Your task to perform on an android device: Open notification settings Image 0: 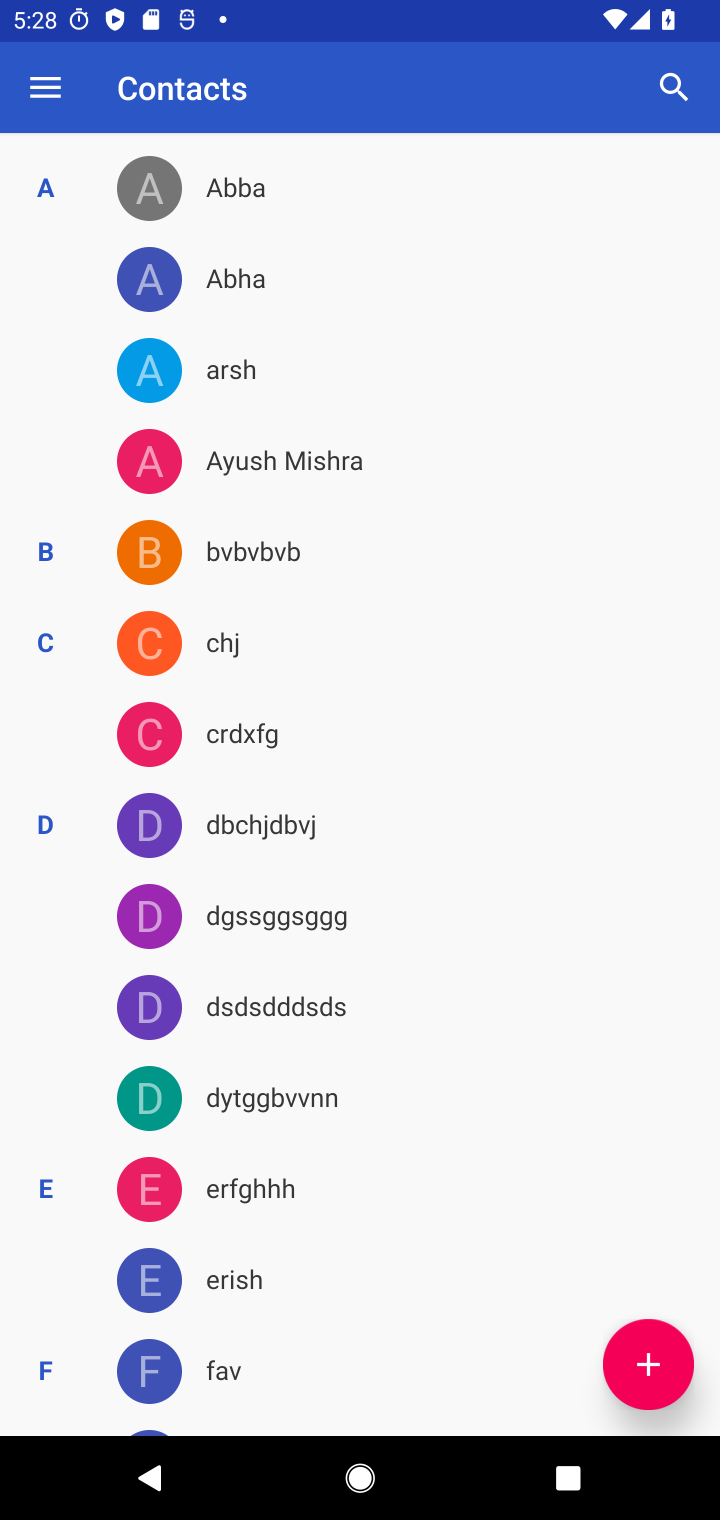
Step 0: press home button
Your task to perform on an android device: Open notification settings Image 1: 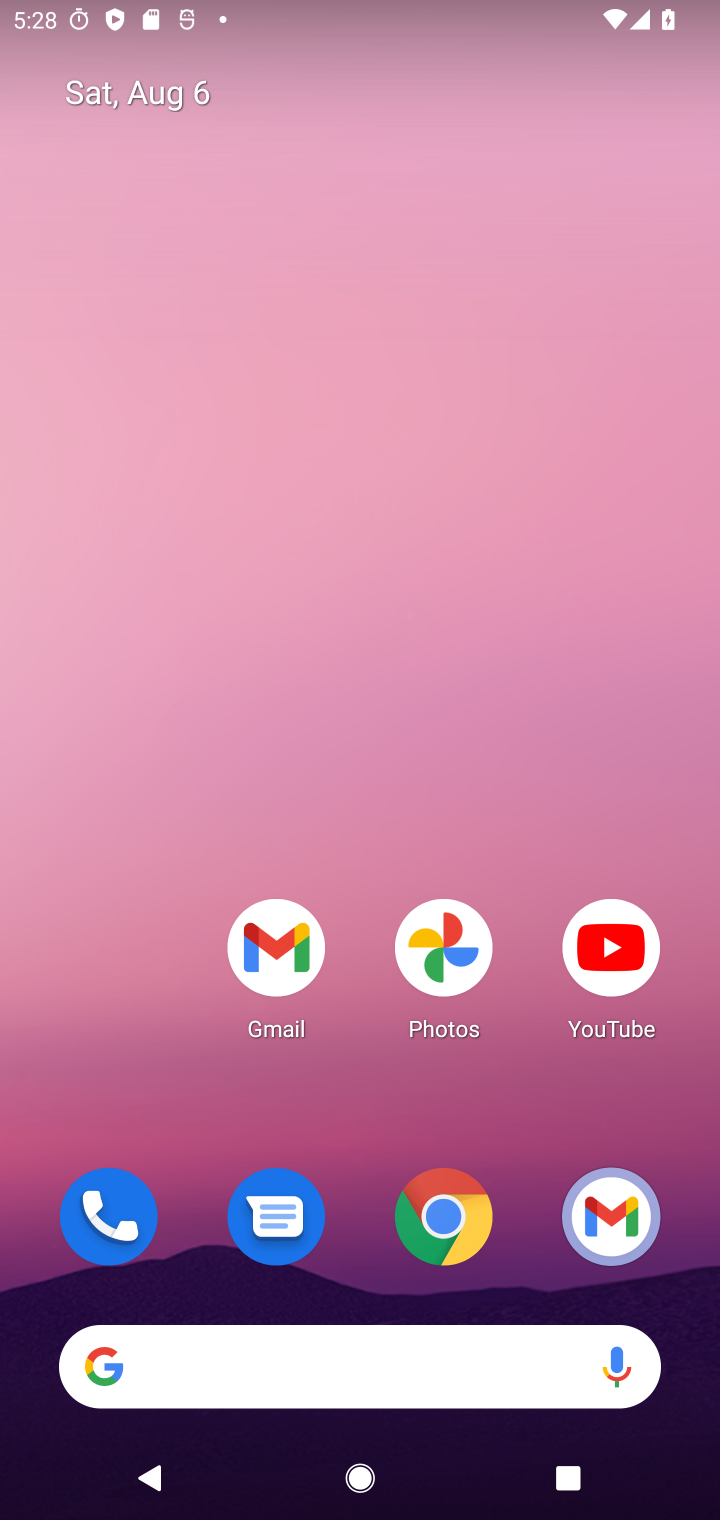
Step 1: drag from (544, 1103) to (572, 263)
Your task to perform on an android device: Open notification settings Image 2: 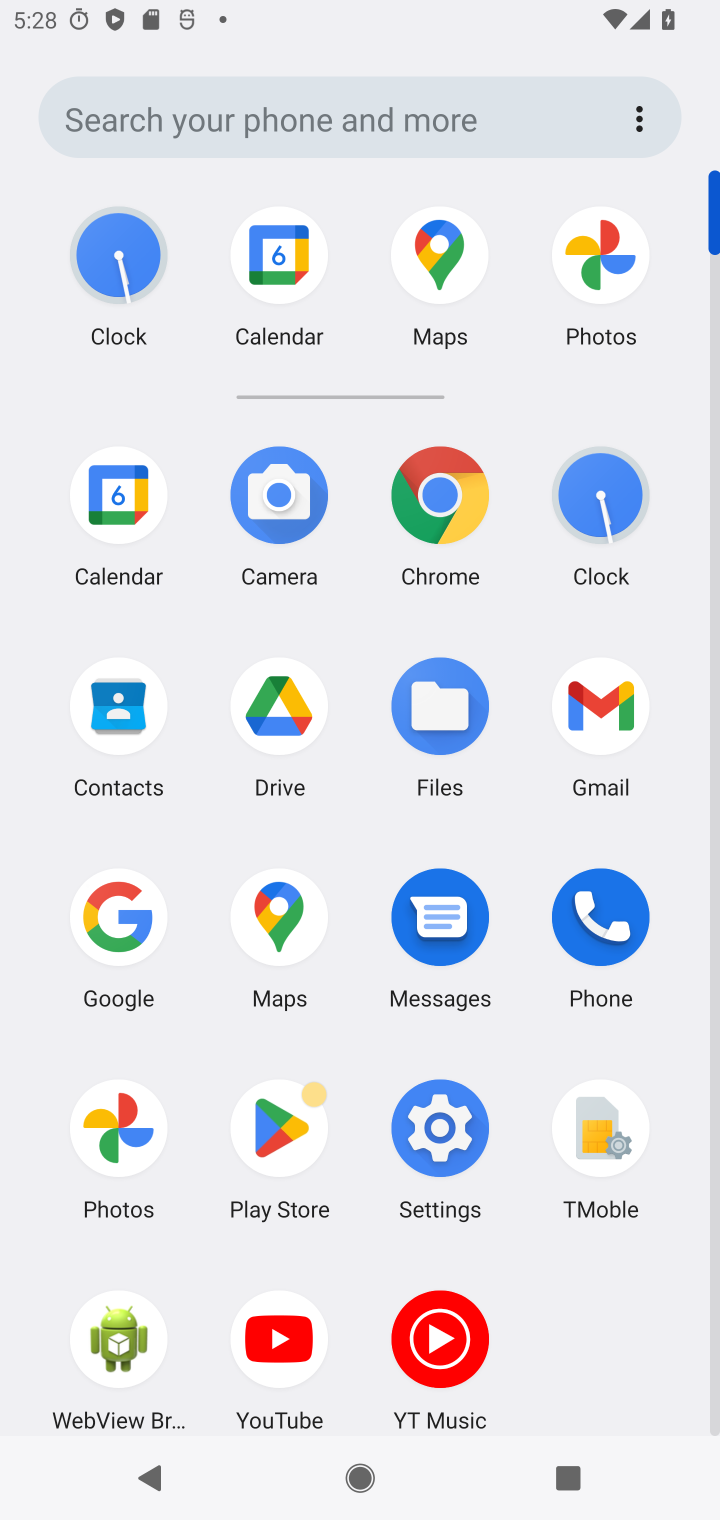
Step 2: click (457, 1120)
Your task to perform on an android device: Open notification settings Image 3: 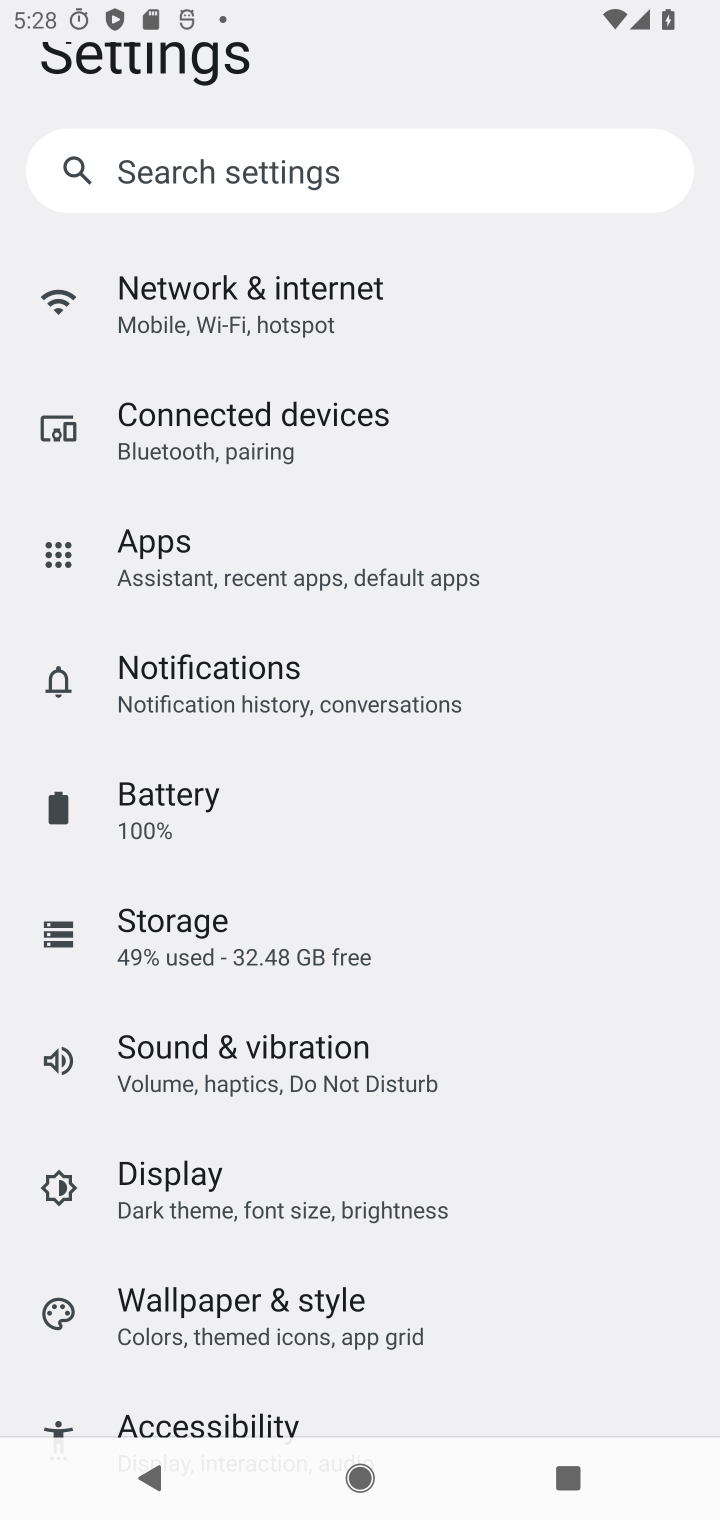
Step 3: click (271, 686)
Your task to perform on an android device: Open notification settings Image 4: 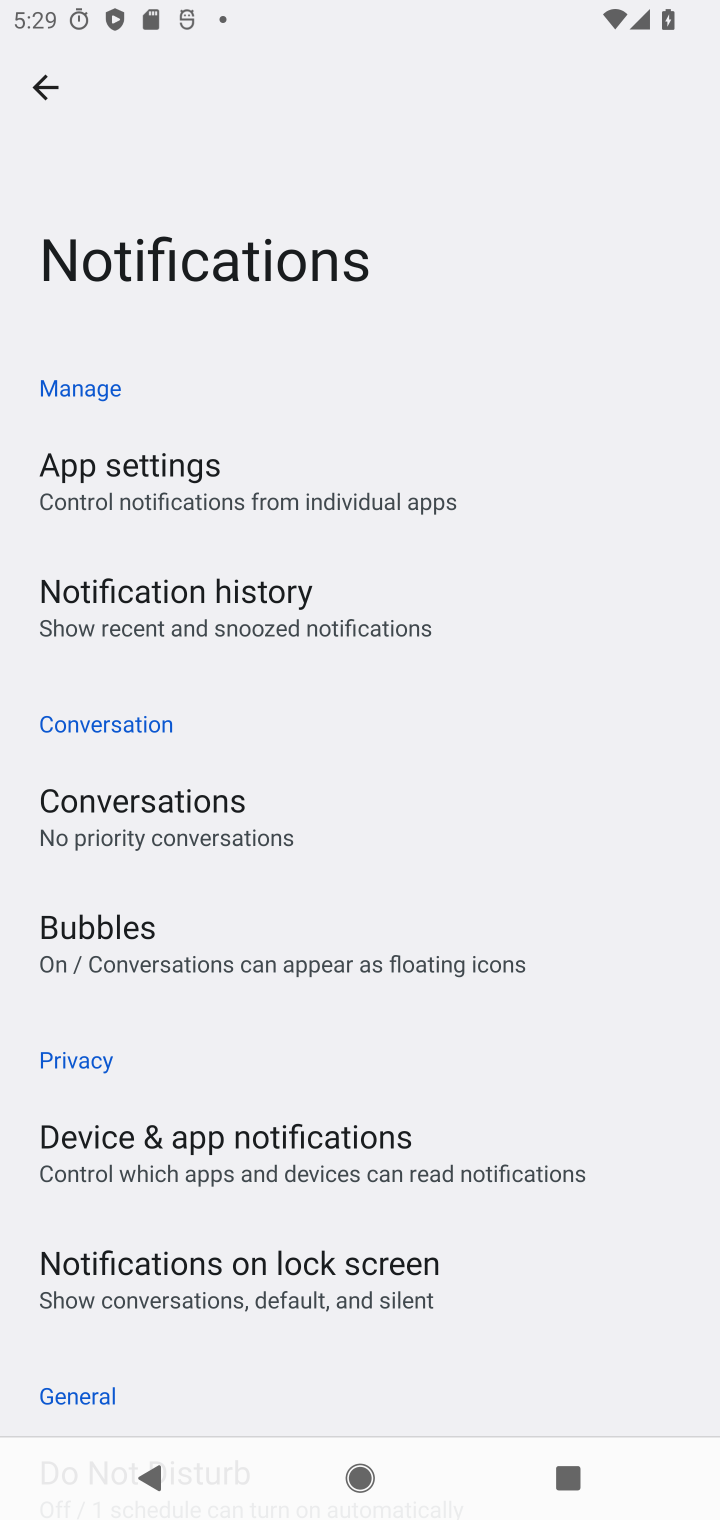
Step 4: task complete